Your task to perform on an android device: see tabs open on other devices in the chrome app Image 0: 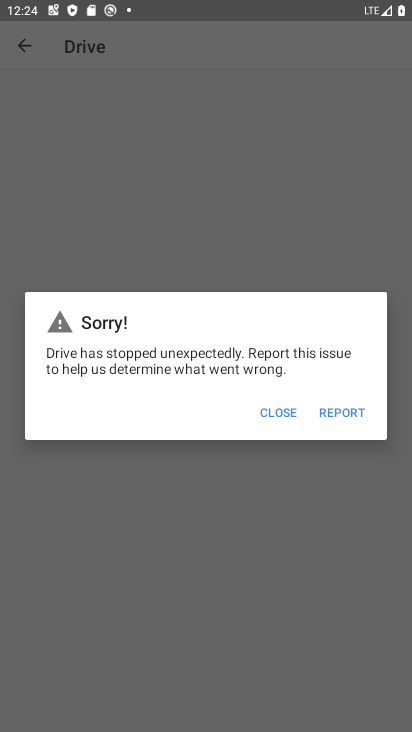
Step 0: press home button
Your task to perform on an android device: see tabs open on other devices in the chrome app Image 1: 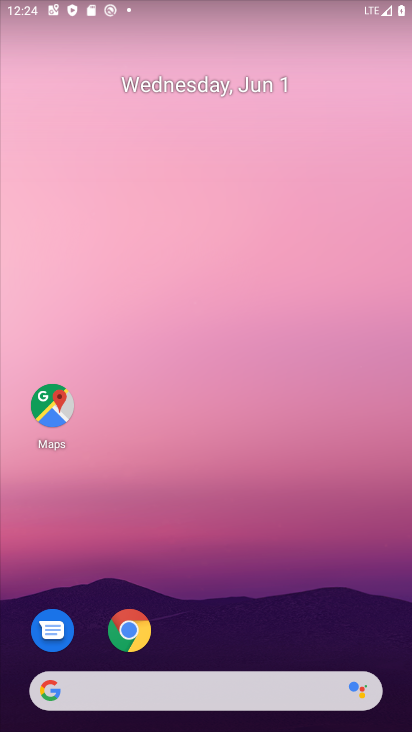
Step 1: drag from (289, 476) to (319, 72)
Your task to perform on an android device: see tabs open on other devices in the chrome app Image 2: 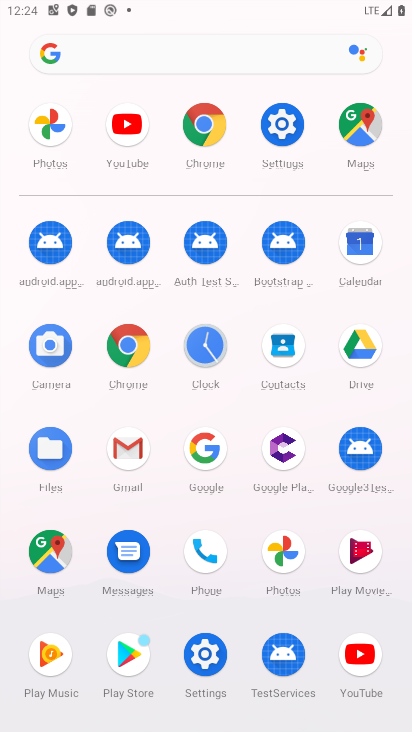
Step 2: press home button
Your task to perform on an android device: see tabs open on other devices in the chrome app Image 3: 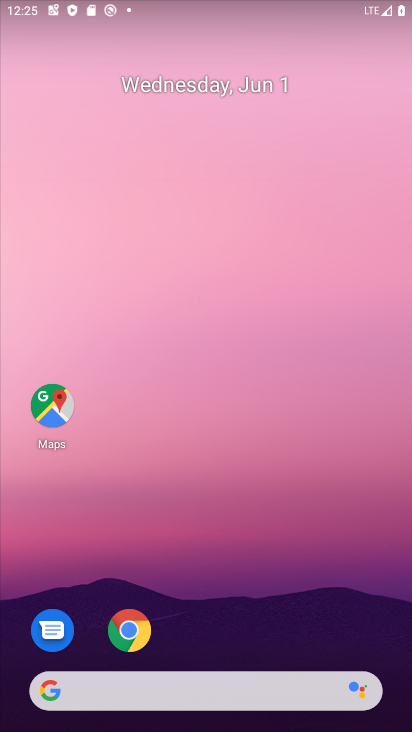
Step 3: click (139, 638)
Your task to perform on an android device: see tabs open on other devices in the chrome app Image 4: 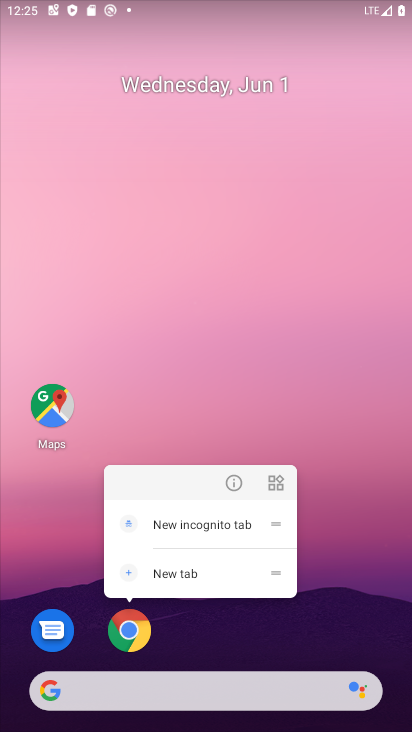
Step 4: click (118, 627)
Your task to perform on an android device: see tabs open on other devices in the chrome app Image 5: 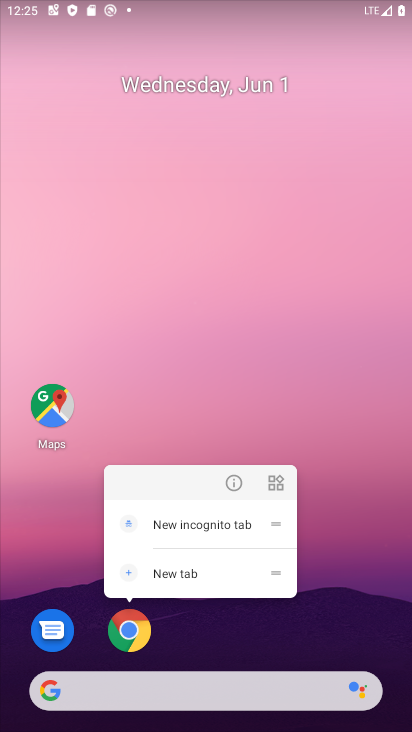
Step 5: click (127, 630)
Your task to perform on an android device: see tabs open on other devices in the chrome app Image 6: 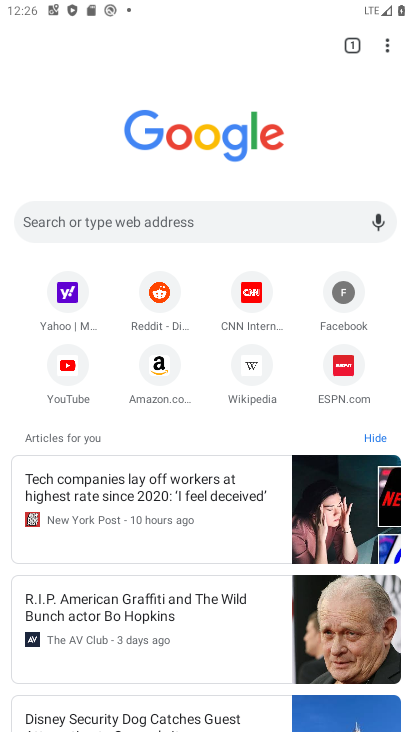
Step 6: press home button
Your task to perform on an android device: see tabs open on other devices in the chrome app Image 7: 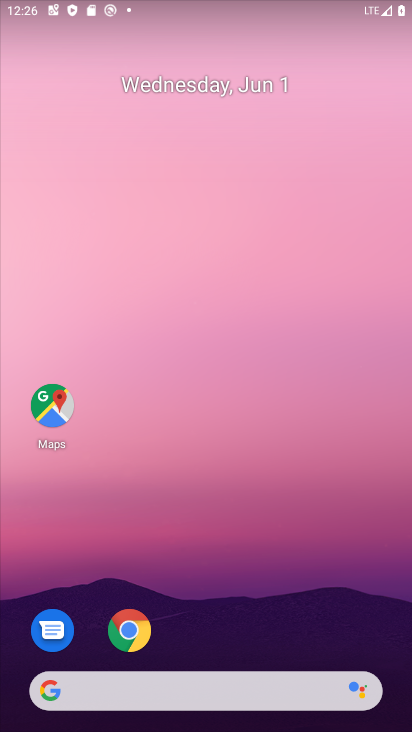
Step 7: click (135, 634)
Your task to perform on an android device: see tabs open on other devices in the chrome app Image 8: 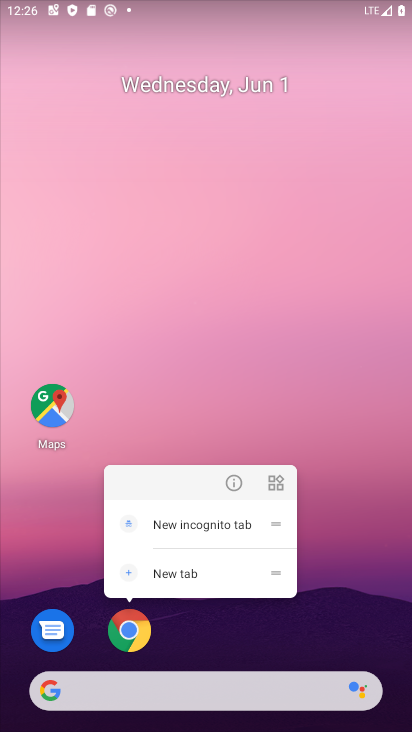
Step 8: click (144, 635)
Your task to perform on an android device: see tabs open on other devices in the chrome app Image 9: 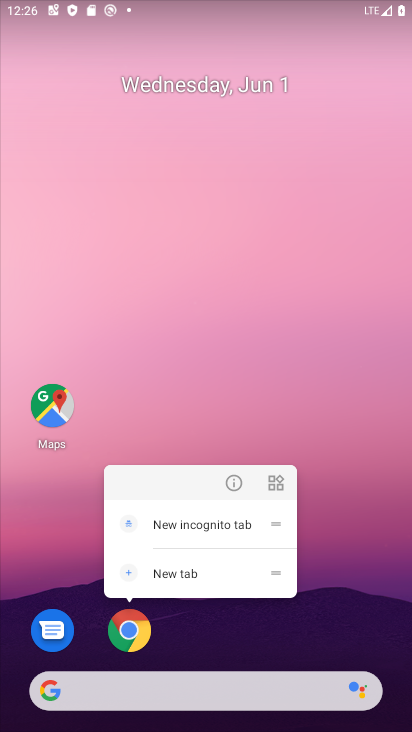
Step 9: click (145, 637)
Your task to perform on an android device: see tabs open on other devices in the chrome app Image 10: 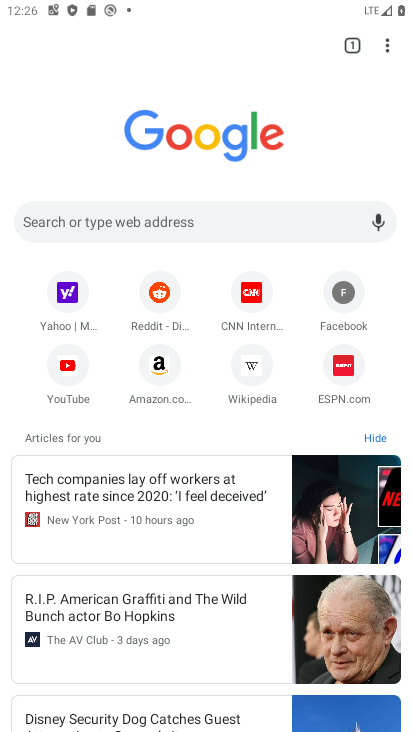
Step 10: click (386, 44)
Your task to perform on an android device: see tabs open on other devices in the chrome app Image 11: 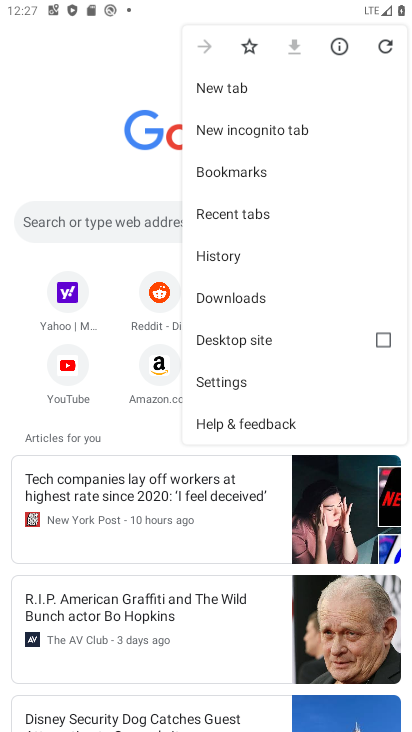
Step 11: click (217, 258)
Your task to perform on an android device: see tabs open on other devices in the chrome app Image 12: 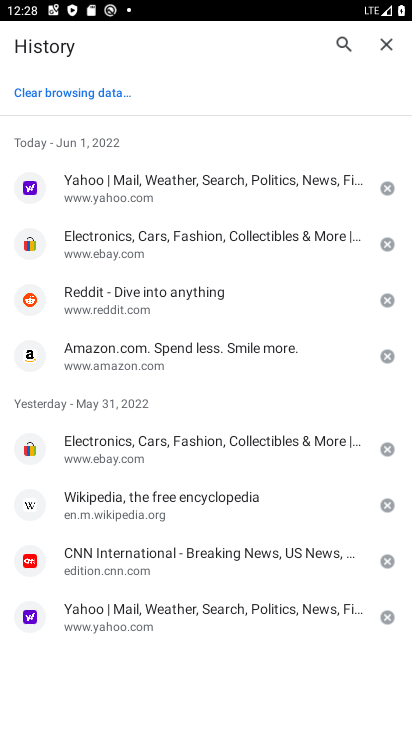
Step 12: task complete